Your task to perform on an android device: Open Google Chrome and open the bookmarks view Image 0: 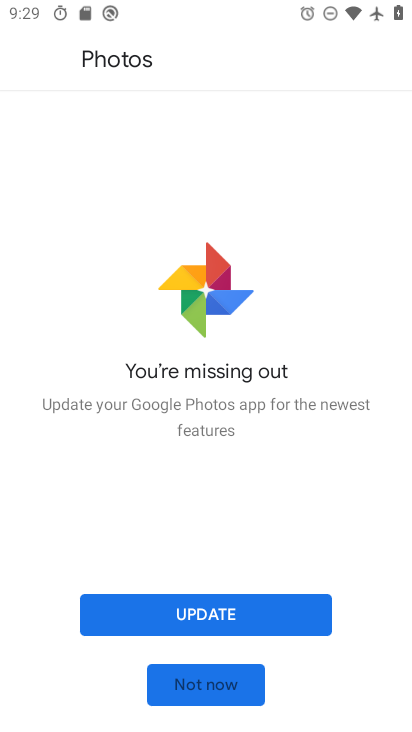
Step 0: press home button
Your task to perform on an android device: Open Google Chrome and open the bookmarks view Image 1: 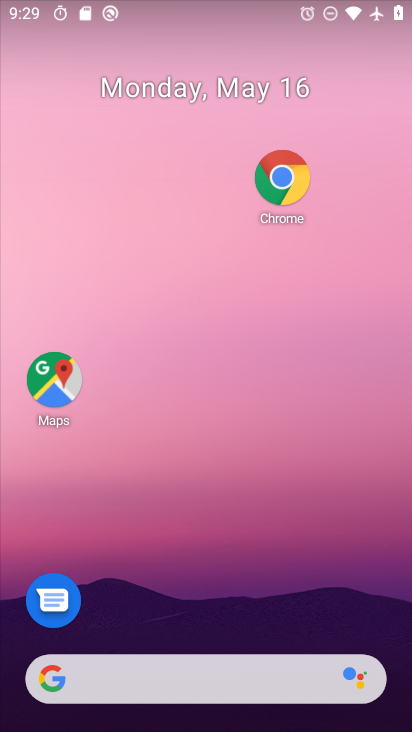
Step 1: click (286, 195)
Your task to perform on an android device: Open Google Chrome and open the bookmarks view Image 2: 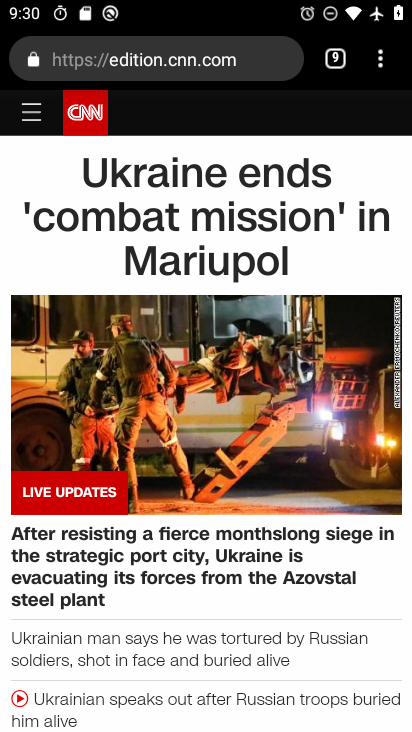
Step 2: task complete